Your task to perform on an android device: toggle notifications settings in the gmail app Image 0: 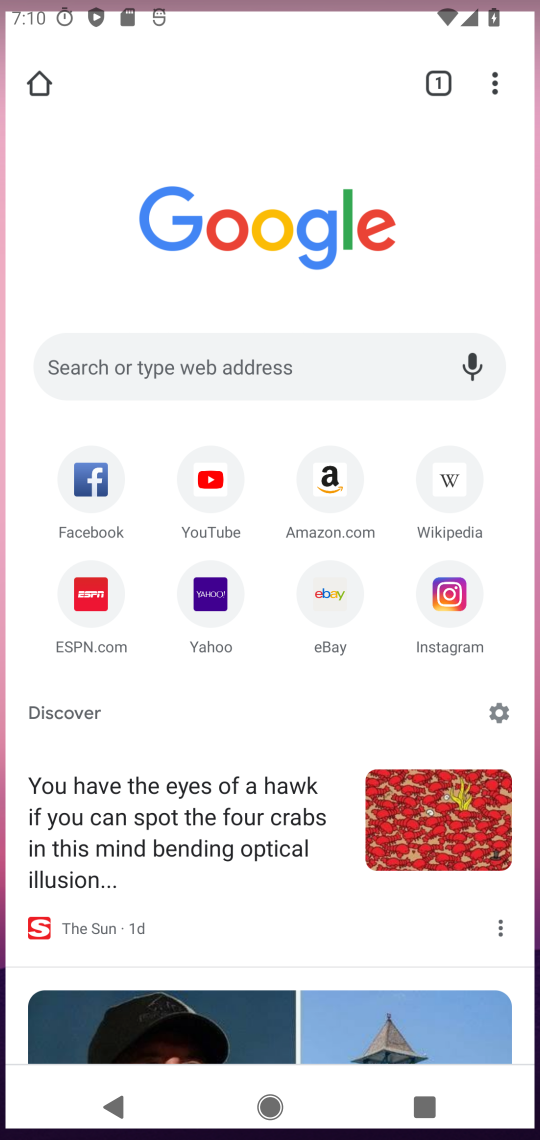
Step 0: drag from (362, 974) to (276, 273)
Your task to perform on an android device: toggle notifications settings in the gmail app Image 1: 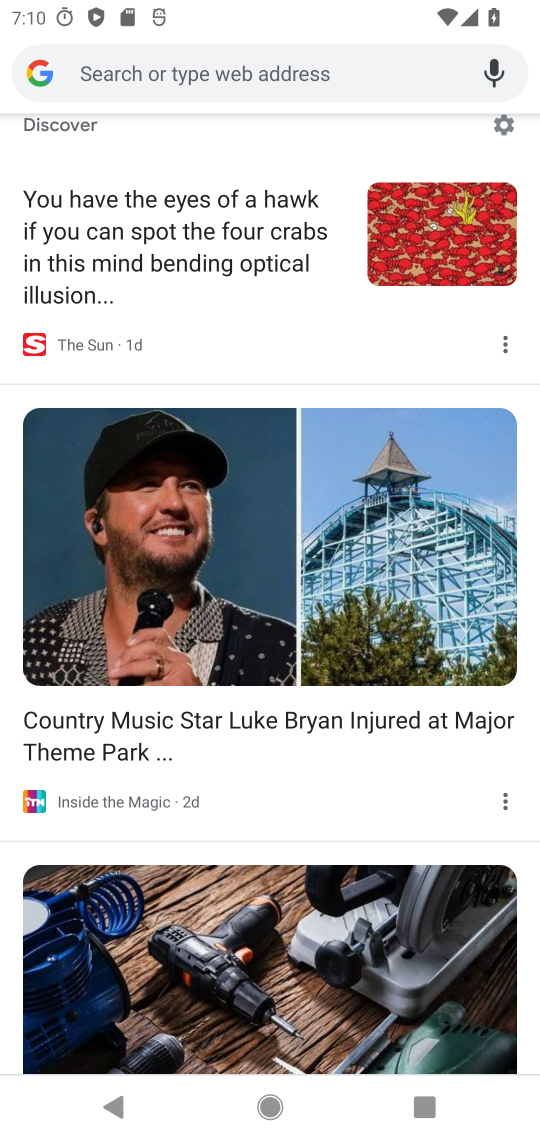
Step 1: press back button
Your task to perform on an android device: toggle notifications settings in the gmail app Image 2: 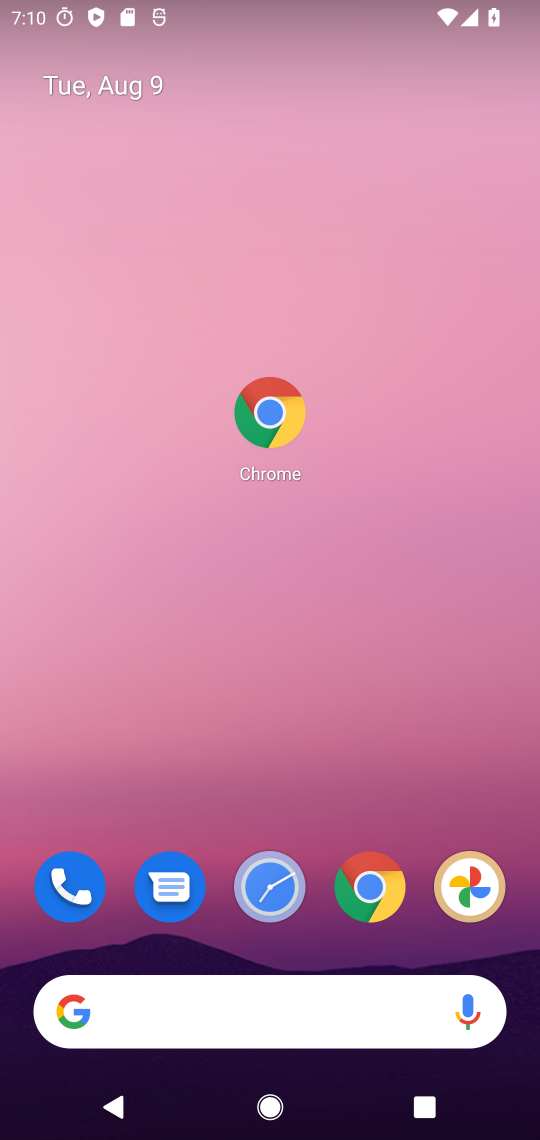
Step 2: drag from (372, 1071) to (361, 447)
Your task to perform on an android device: toggle notifications settings in the gmail app Image 3: 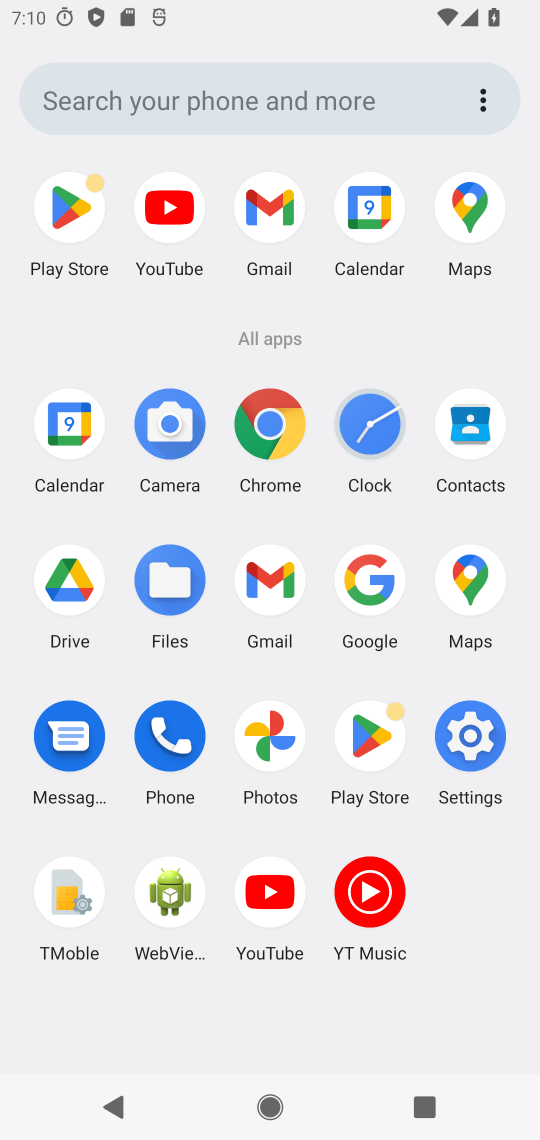
Step 3: click (259, 581)
Your task to perform on an android device: toggle notifications settings in the gmail app Image 4: 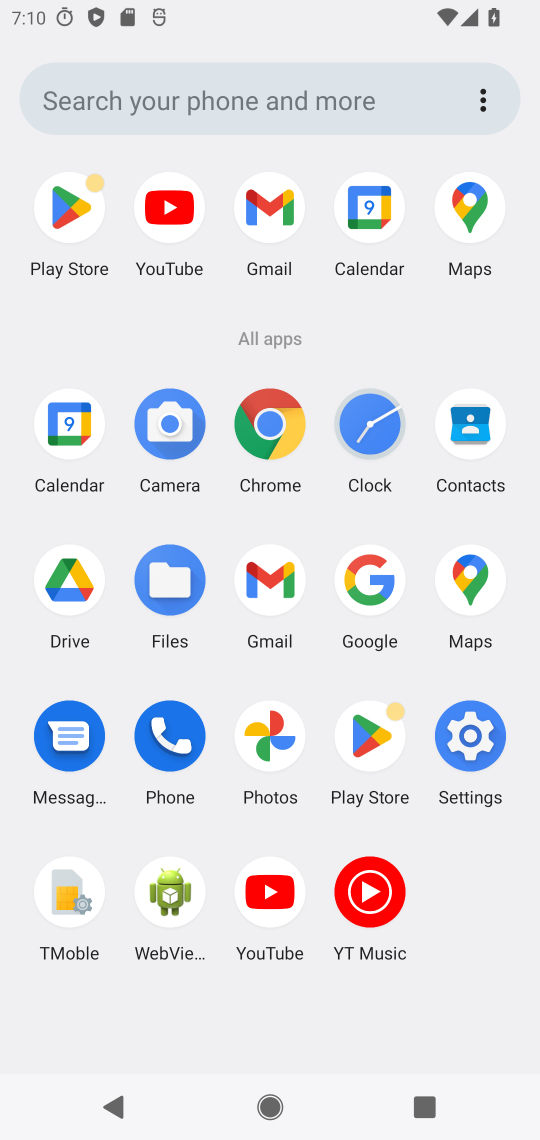
Step 4: click (261, 580)
Your task to perform on an android device: toggle notifications settings in the gmail app Image 5: 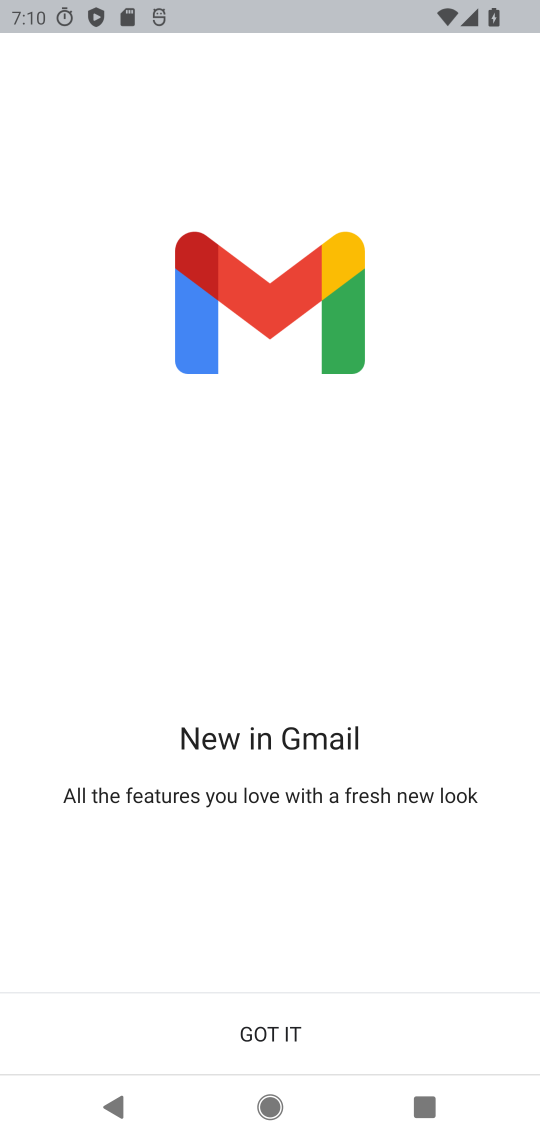
Step 5: click (261, 580)
Your task to perform on an android device: toggle notifications settings in the gmail app Image 6: 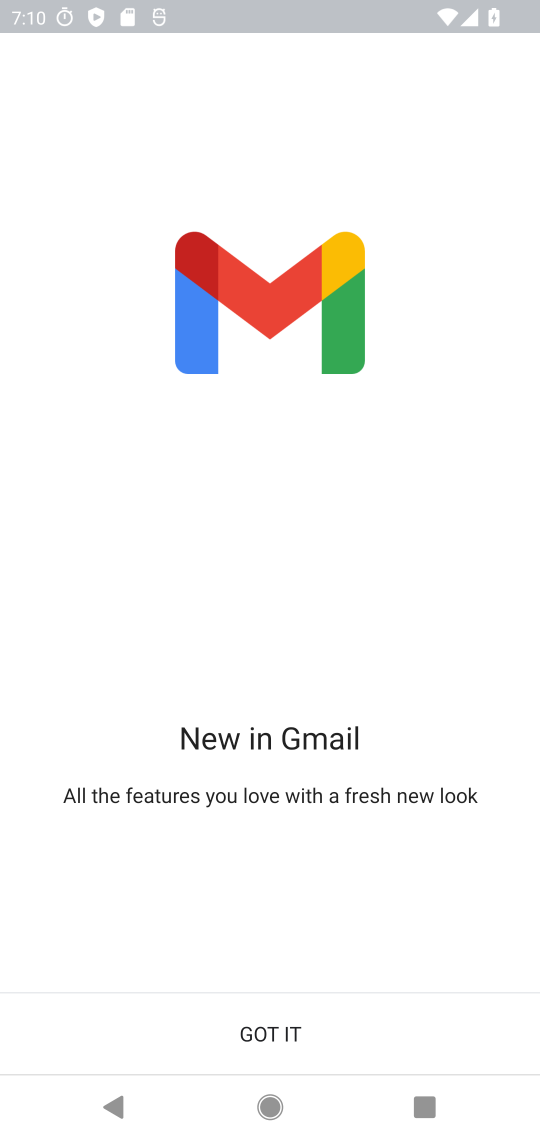
Step 6: click (253, 1030)
Your task to perform on an android device: toggle notifications settings in the gmail app Image 7: 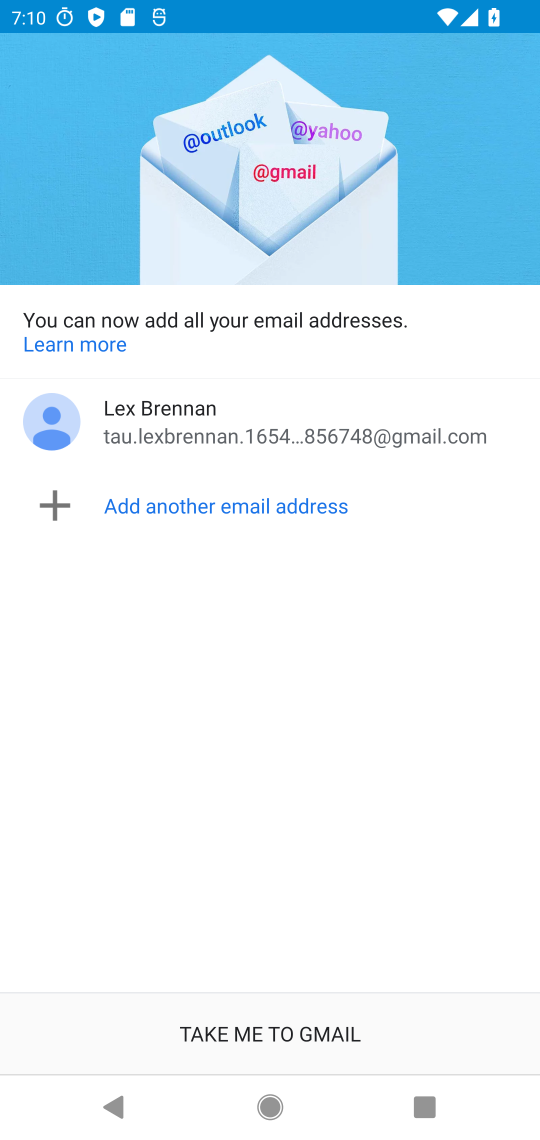
Step 7: click (309, 1026)
Your task to perform on an android device: toggle notifications settings in the gmail app Image 8: 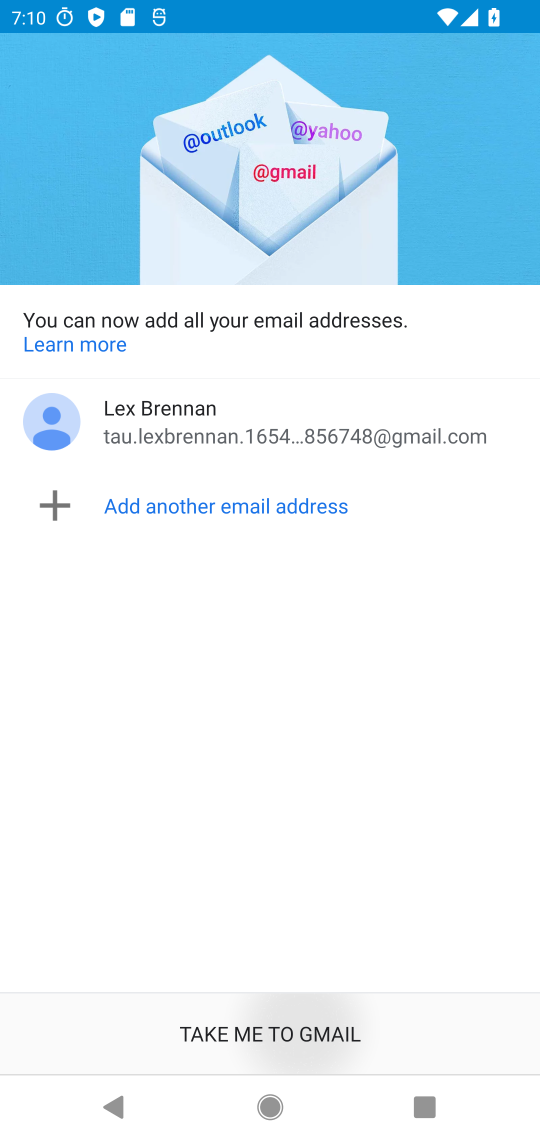
Step 8: click (308, 1024)
Your task to perform on an android device: toggle notifications settings in the gmail app Image 9: 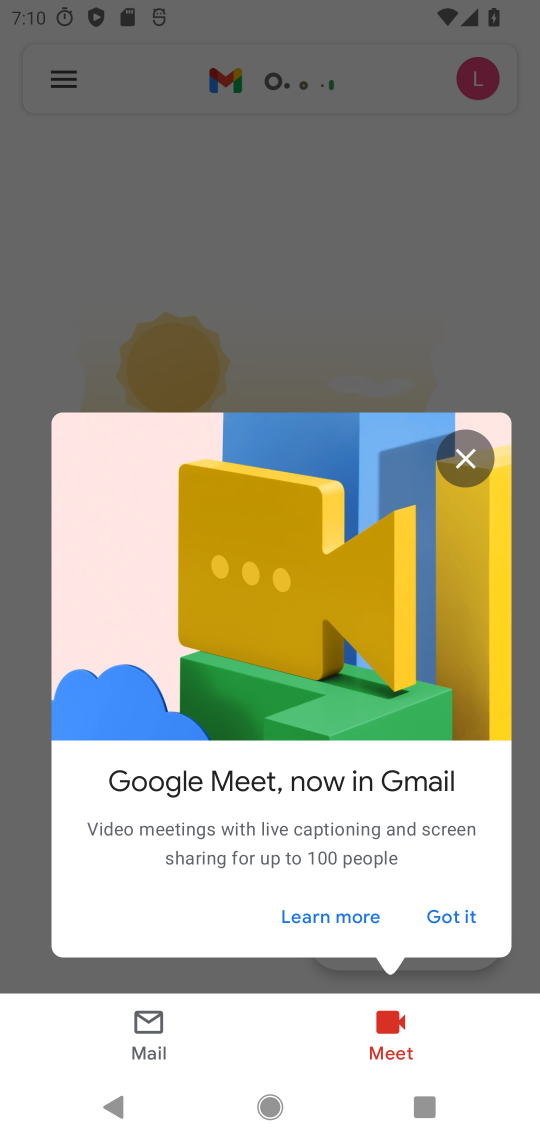
Step 9: click (466, 472)
Your task to perform on an android device: toggle notifications settings in the gmail app Image 10: 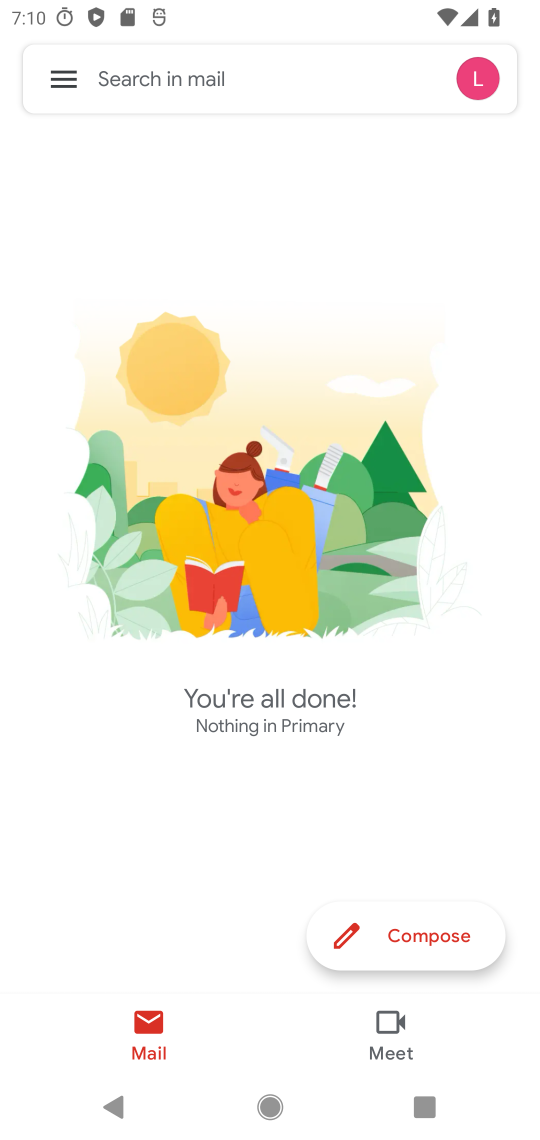
Step 10: click (74, 74)
Your task to perform on an android device: toggle notifications settings in the gmail app Image 11: 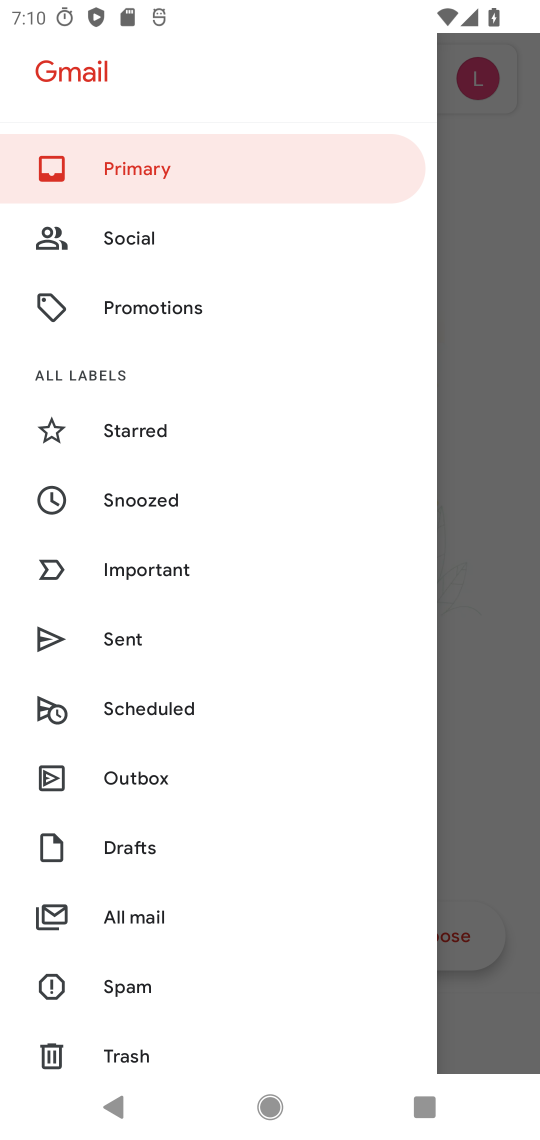
Step 11: drag from (155, 1031) to (199, 527)
Your task to perform on an android device: toggle notifications settings in the gmail app Image 12: 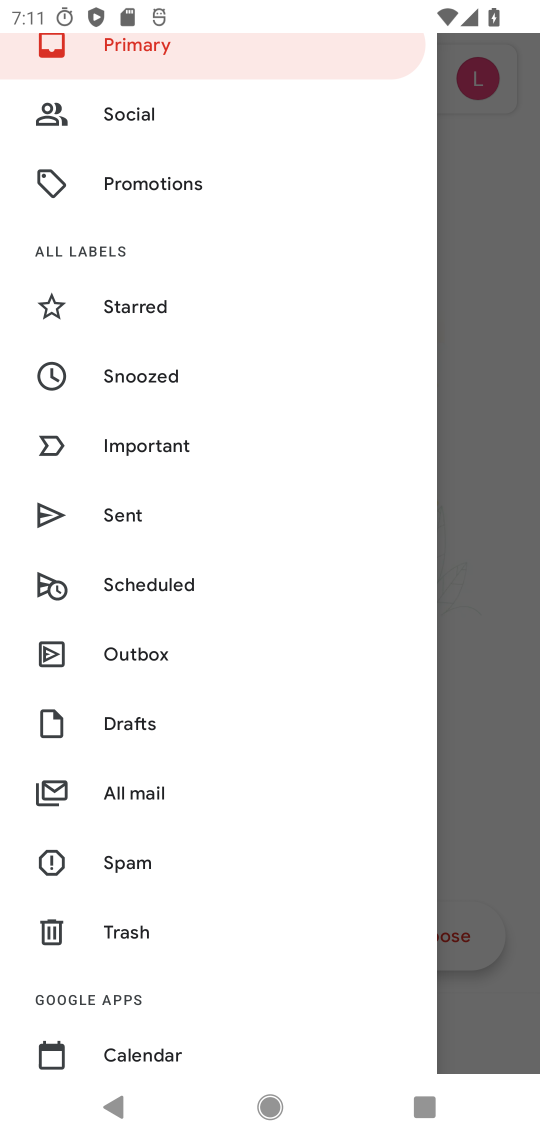
Step 12: drag from (154, 889) to (137, 380)
Your task to perform on an android device: toggle notifications settings in the gmail app Image 13: 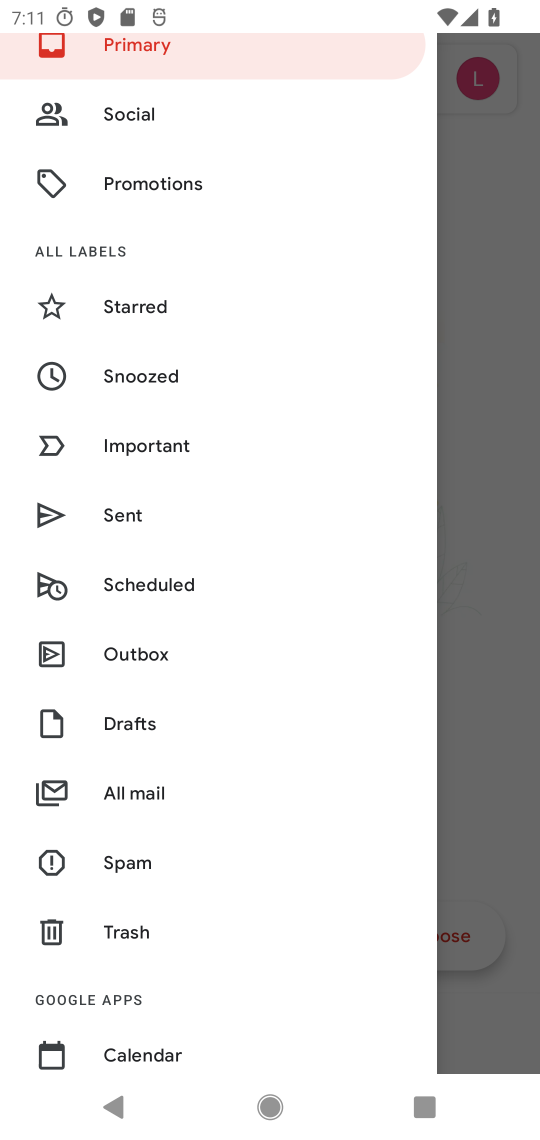
Step 13: drag from (313, 860) to (282, 515)
Your task to perform on an android device: toggle notifications settings in the gmail app Image 14: 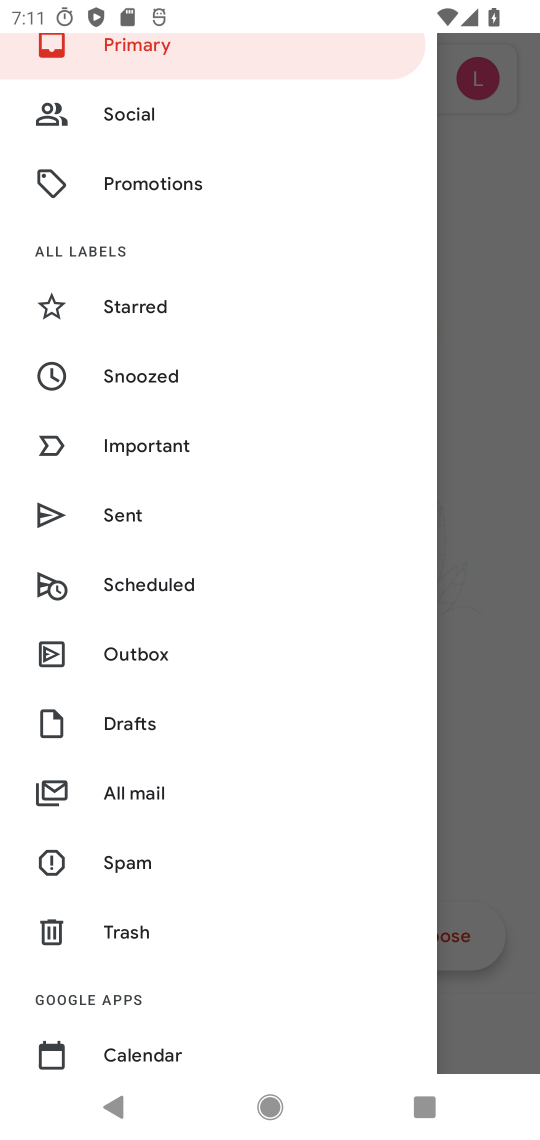
Step 14: drag from (260, 849) to (260, 286)
Your task to perform on an android device: toggle notifications settings in the gmail app Image 15: 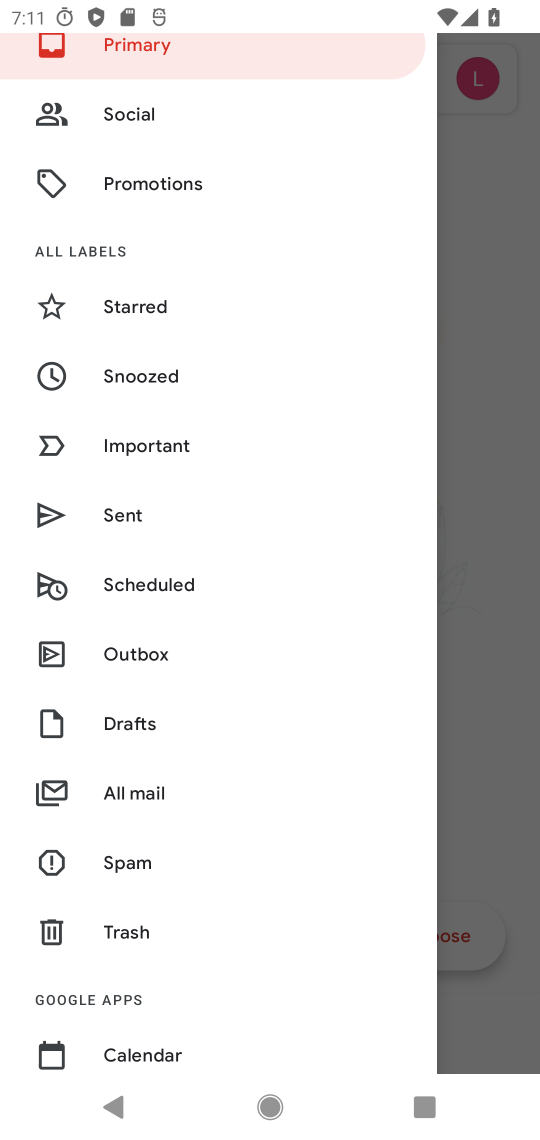
Step 15: drag from (253, 706) to (238, 474)
Your task to perform on an android device: toggle notifications settings in the gmail app Image 16: 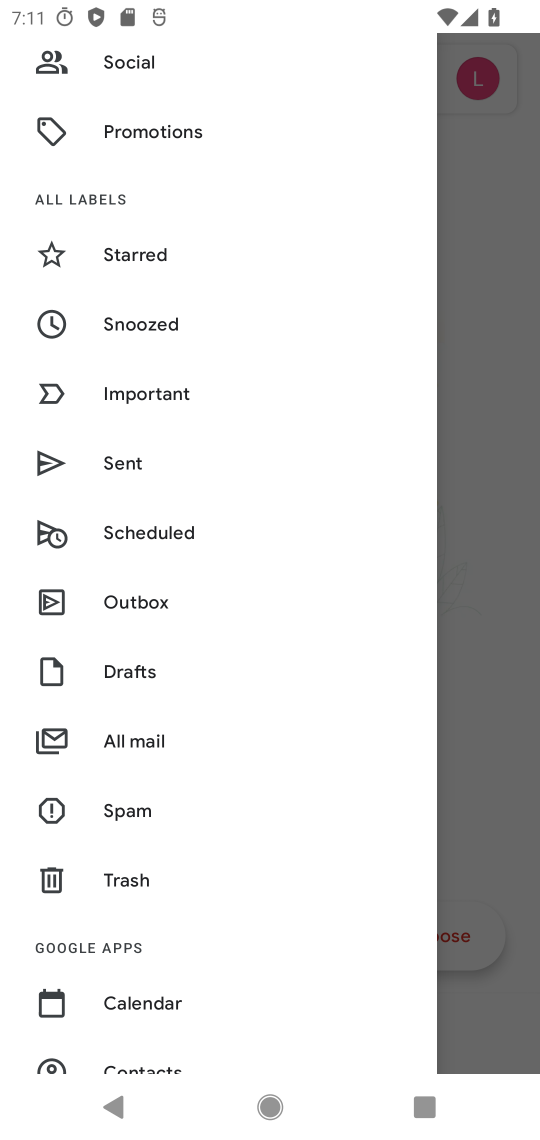
Step 16: click (236, 891)
Your task to perform on an android device: toggle notifications settings in the gmail app Image 17: 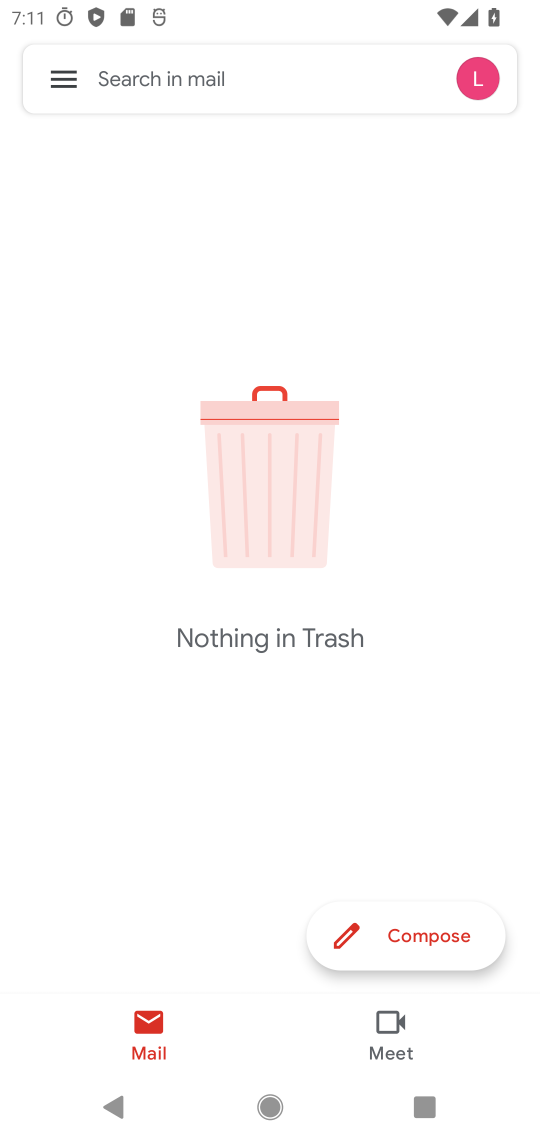
Step 17: click (41, 66)
Your task to perform on an android device: toggle notifications settings in the gmail app Image 18: 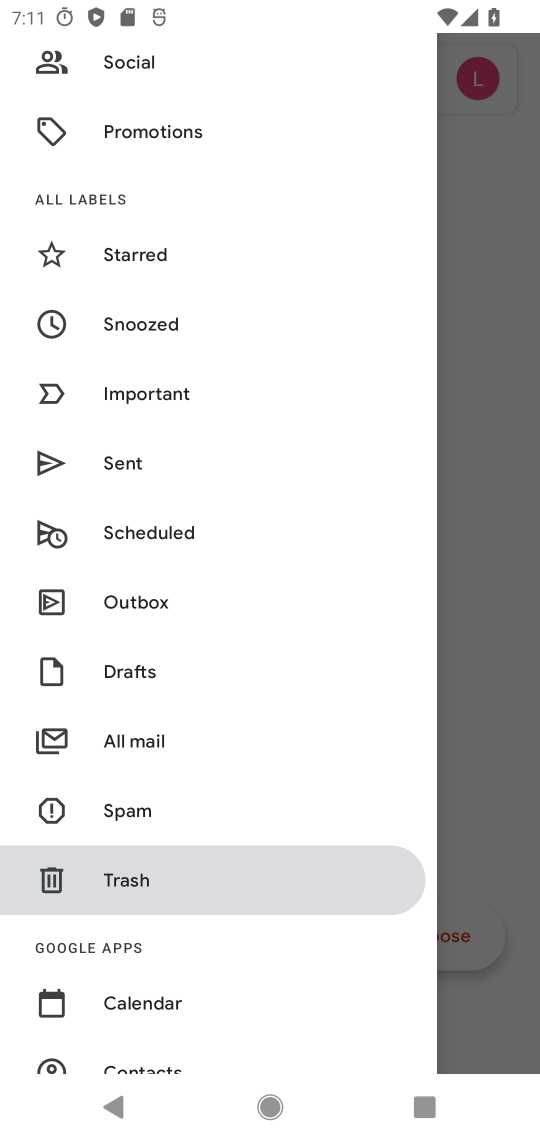
Step 18: drag from (197, 1027) to (216, 505)
Your task to perform on an android device: toggle notifications settings in the gmail app Image 19: 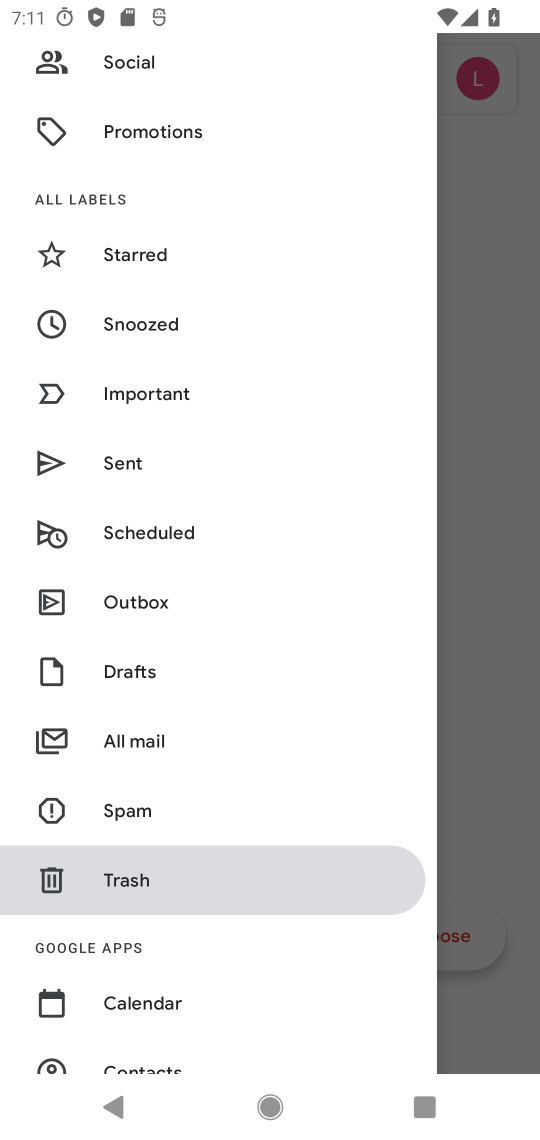
Step 19: drag from (292, 844) to (367, 347)
Your task to perform on an android device: toggle notifications settings in the gmail app Image 20: 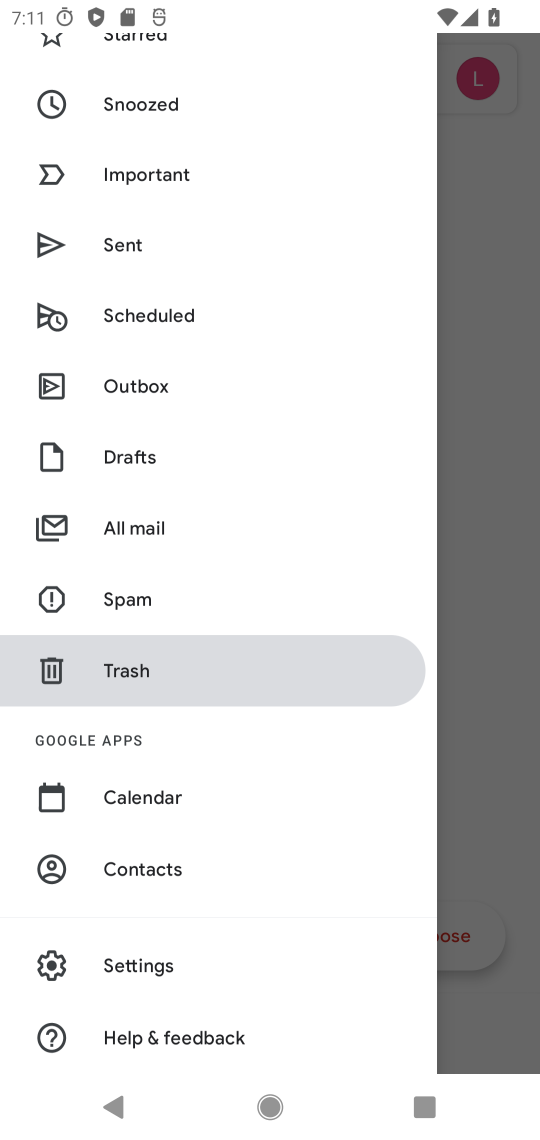
Step 20: drag from (342, 649) to (315, 457)
Your task to perform on an android device: toggle notifications settings in the gmail app Image 21: 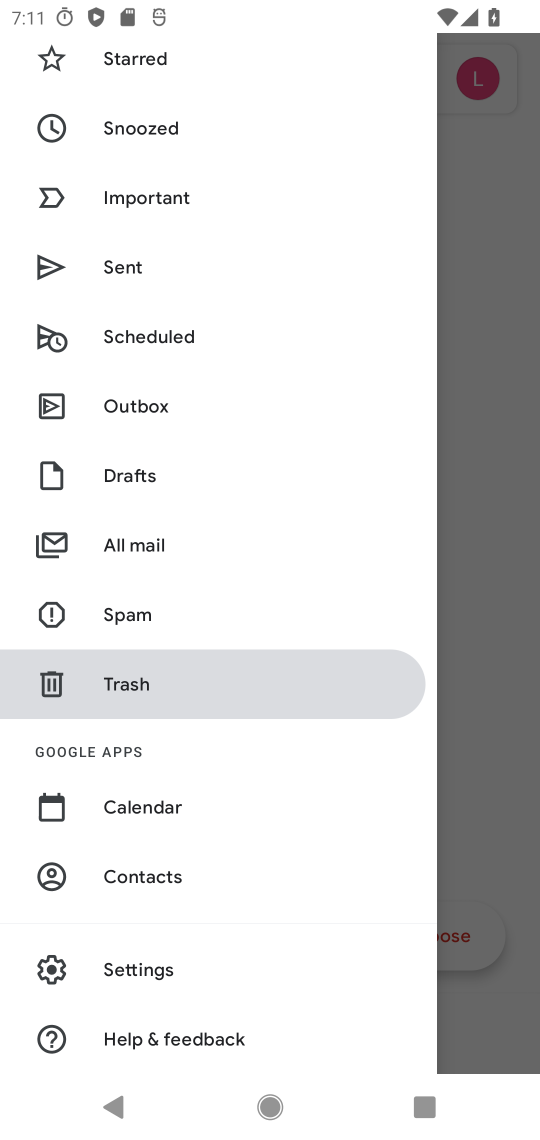
Step 21: click (136, 955)
Your task to perform on an android device: toggle notifications settings in the gmail app Image 22: 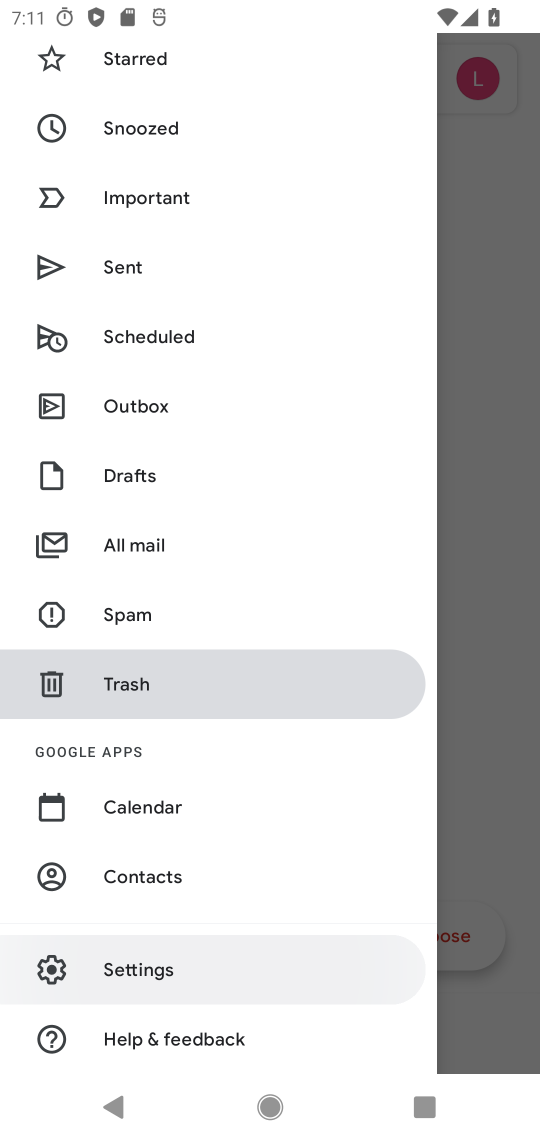
Step 22: click (146, 949)
Your task to perform on an android device: toggle notifications settings in the gmail app Image 23: 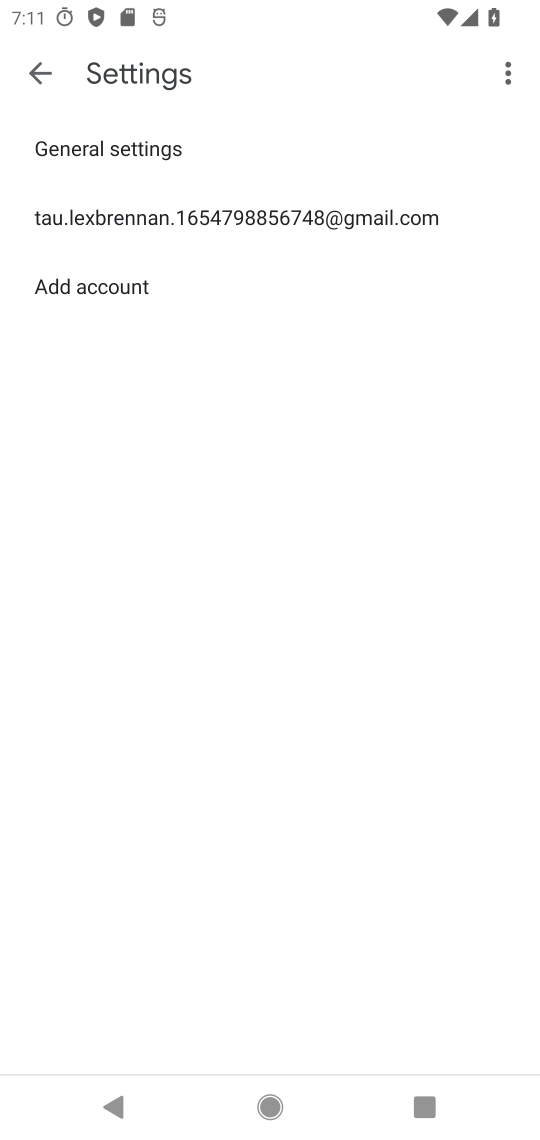
Step 23: click (162, 248)
Your task to perform on an android device: toggle notifications settings in the gmail app Image 24: 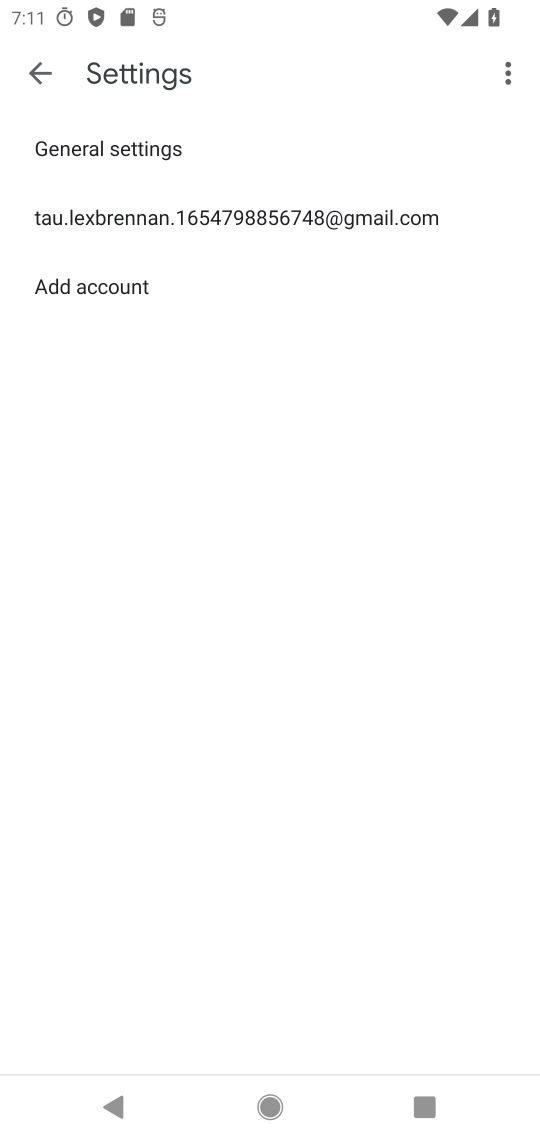
Step 24: click (167, 230)
Your task to perform on an android device: toggle notifications settings in the gmail app Image 25: 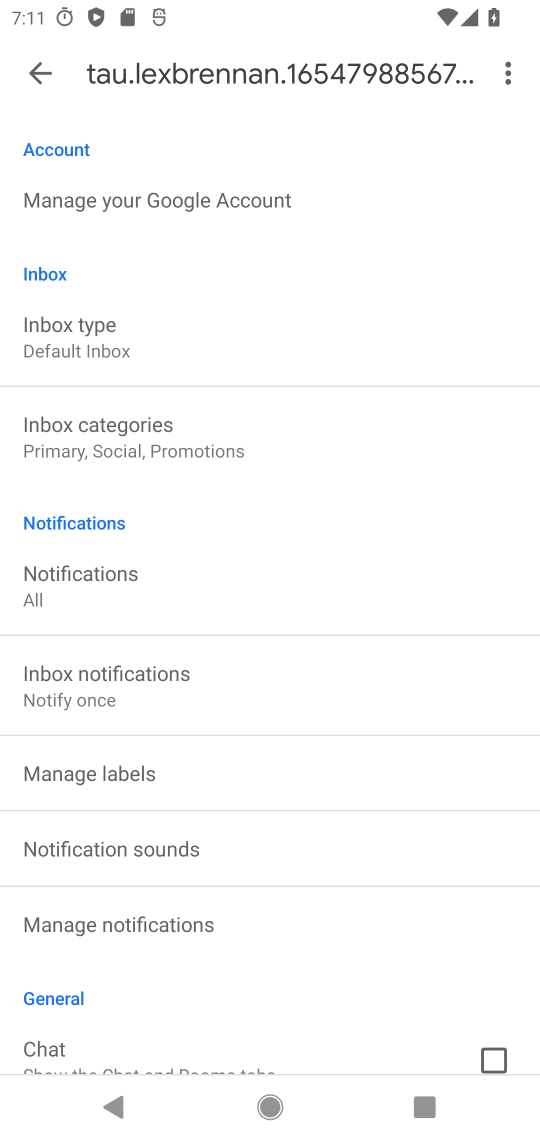
Step 25: click (20, 554)
Your task to perform on an android device: toggle notifications settings in the gmail app Image 26: 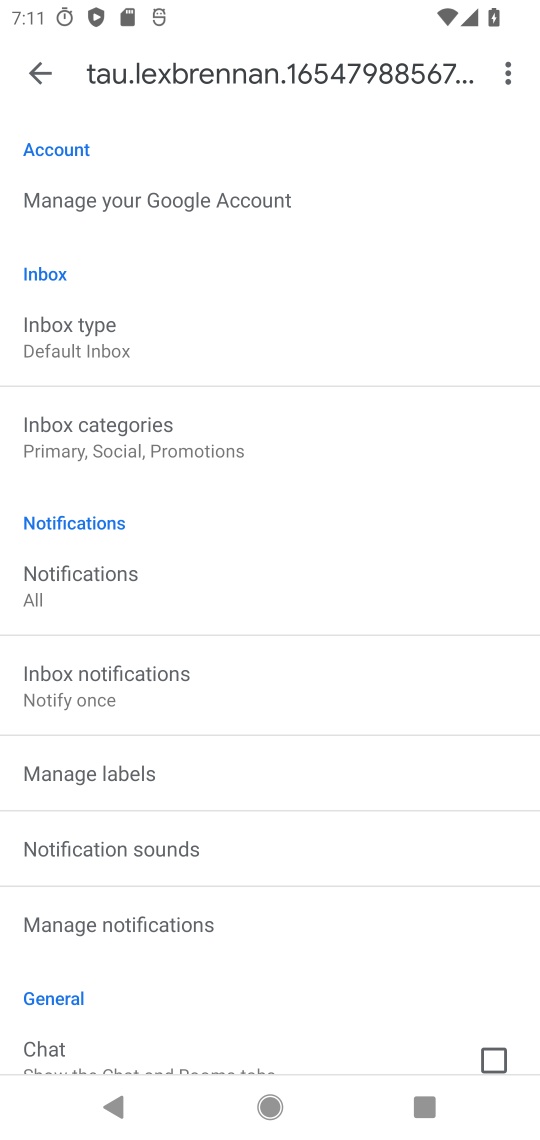
Step 26: click (87, 588)
Your task to perform on an android device: toggle notifications settings in the gmail app Image 27: 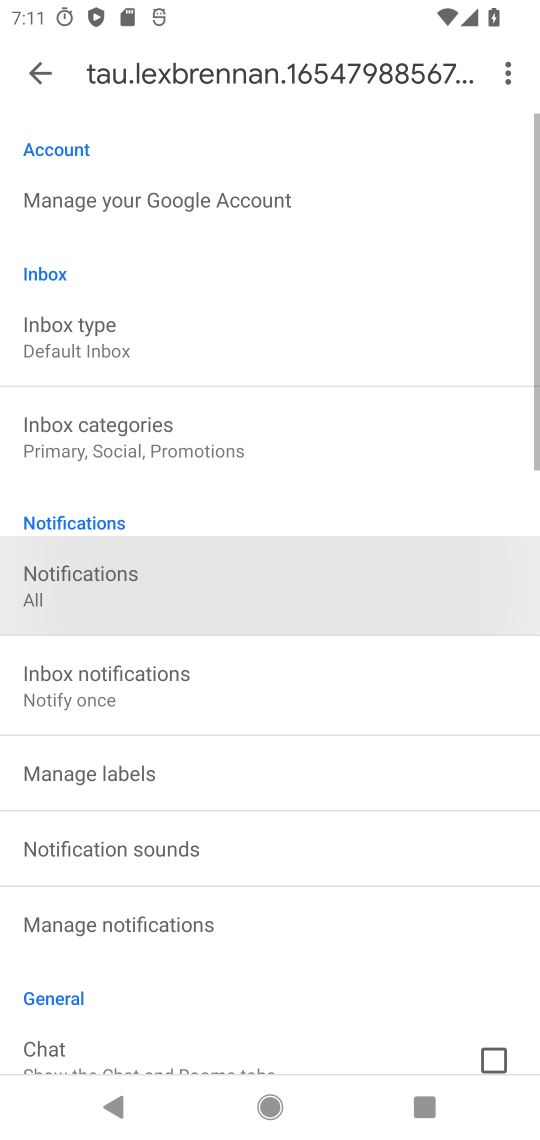
Step 27: click (85, 582)
Your task to perform on an android device: toggle notifications settings in the gmail app Image 28: 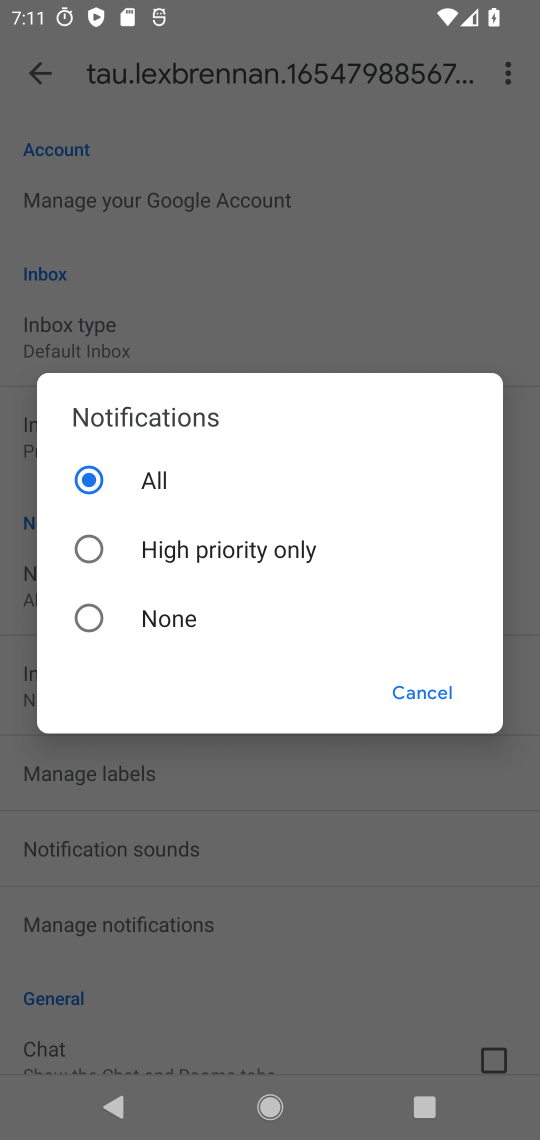
Step 28: click (63, 549)
Your task to perform on an android device: toggle notifications settings in the gmail app Image 29: 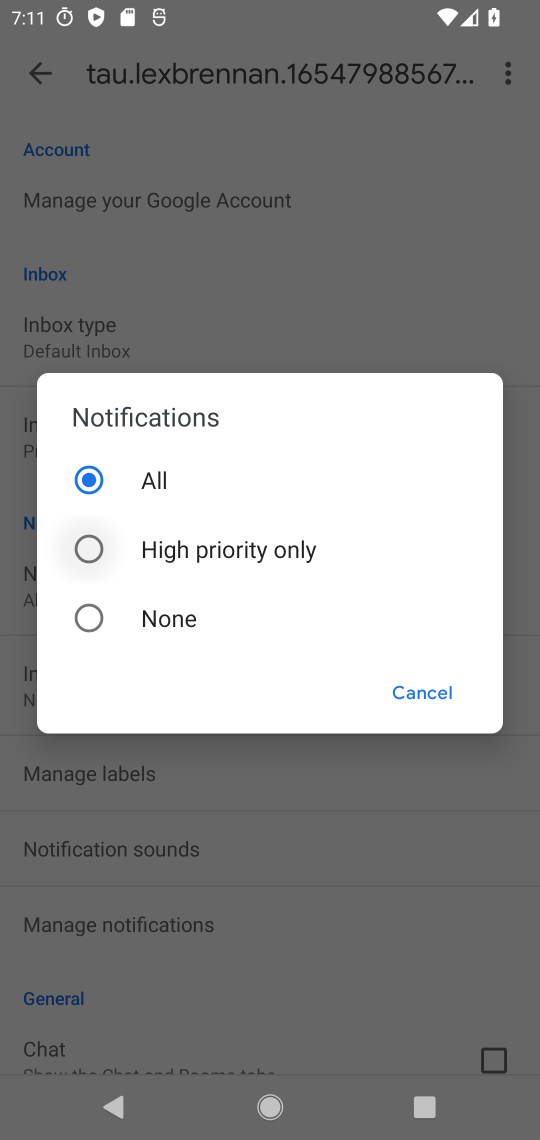
Step 29: click (63, 544)
Your task to perform on an android device: toggle notifications settings in the gmail app Image 30: 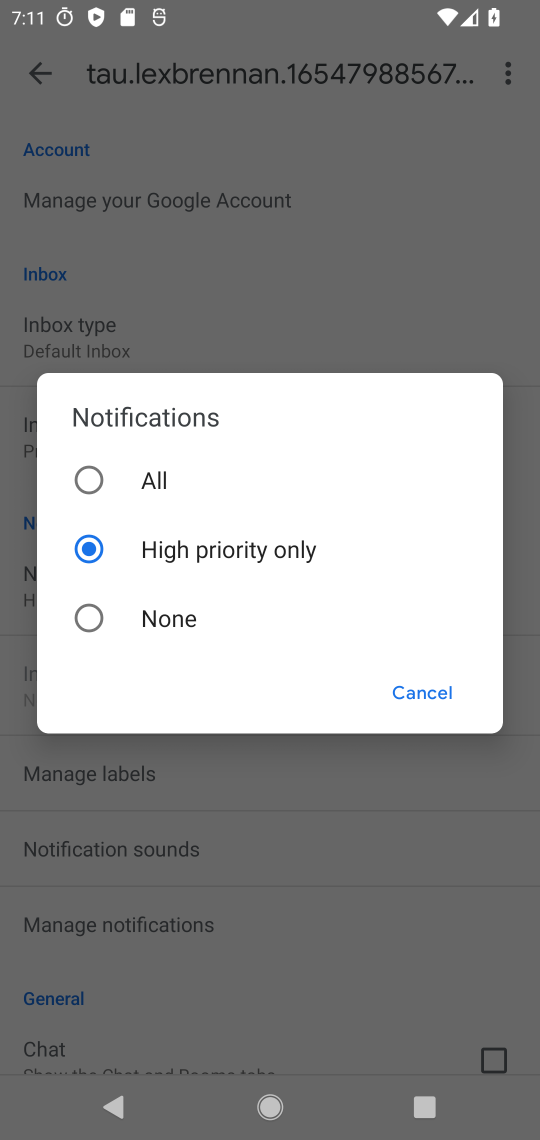
Step 30: task complete